Your task to perform on an android device: delete a single message in the gmail app Image 0: 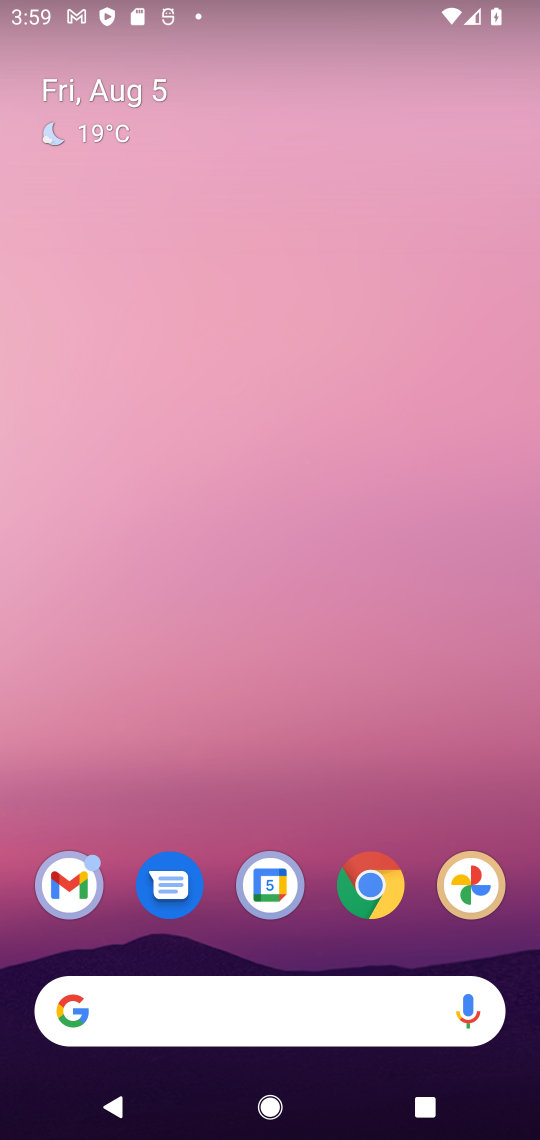
Step 0: drag from (326, 1095) to (331, 368)
Your task to perform on an android device: delete a single message in the gmail app Image 1: 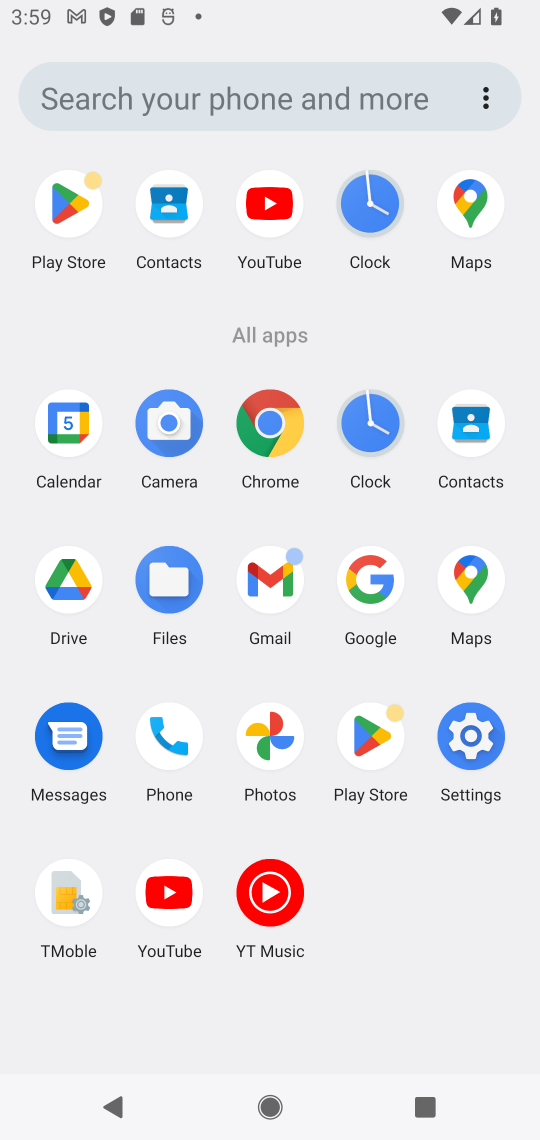
Step 1: click (275, 569)
Your task to perform on an android device: delete a single message in the gmail app Image 2: 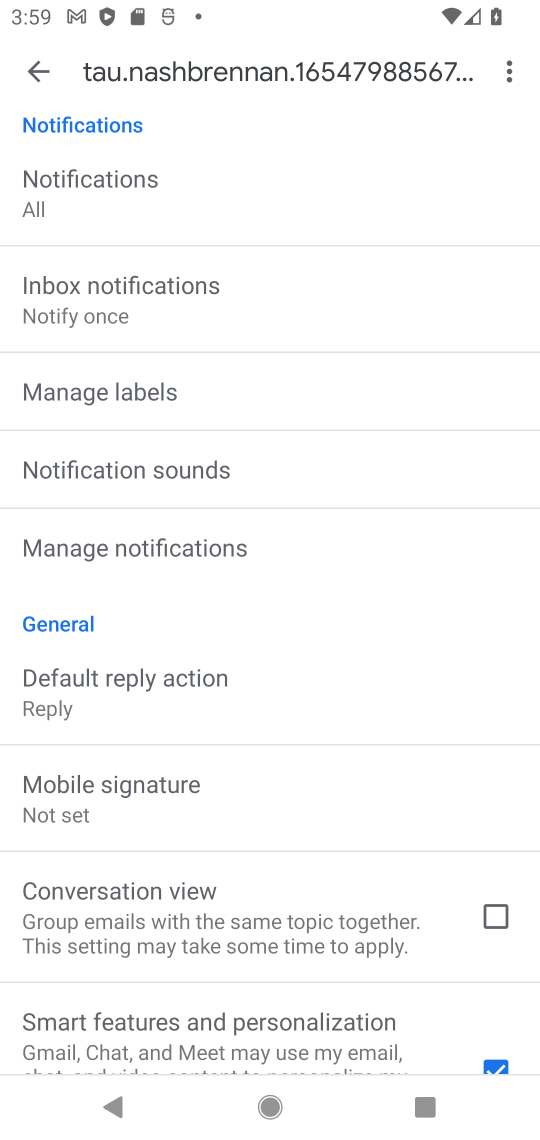
Step 2: click (40, 67)
Your task to perform on an android device: delete a single message in the gmail app Image 3: 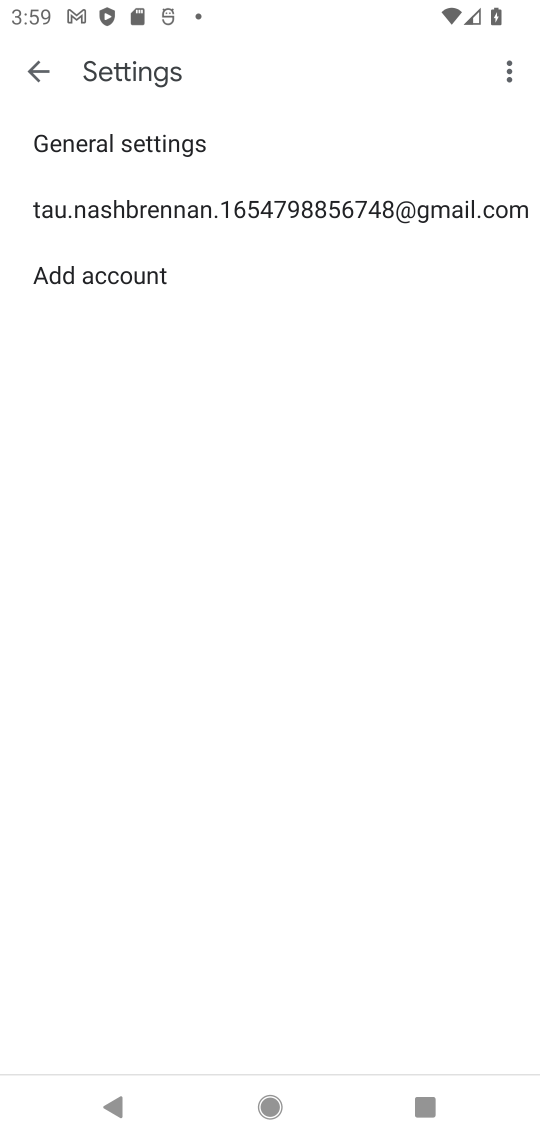
Step 3: click (49, 67)
Your task to perform on an android device: delete a single message in the gmail app Image 4: 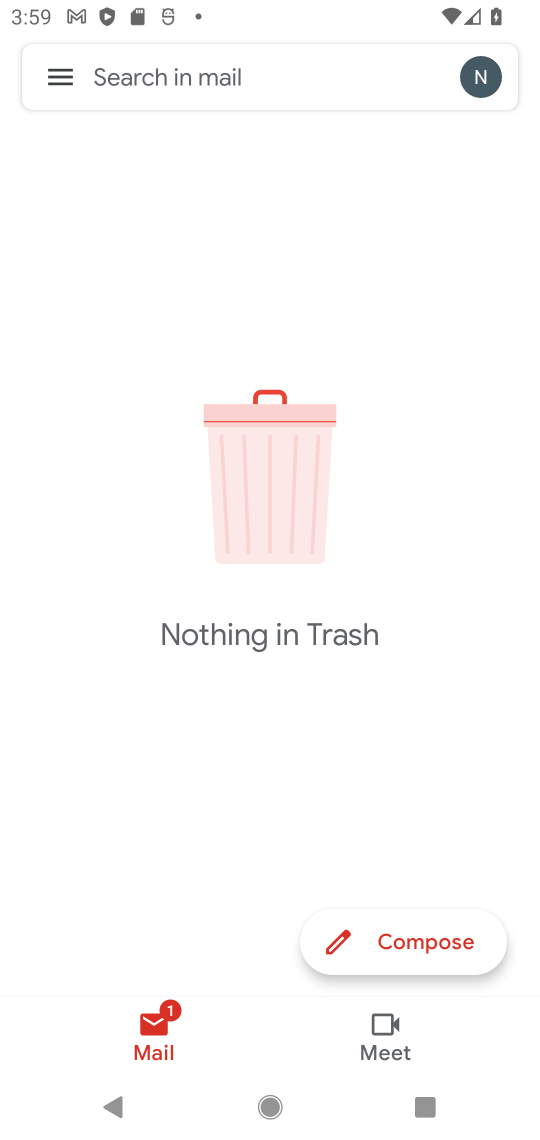
Step 4: click (64, 77)
Your task to perform on an android device: delete a single message in the gmail app Image 5: 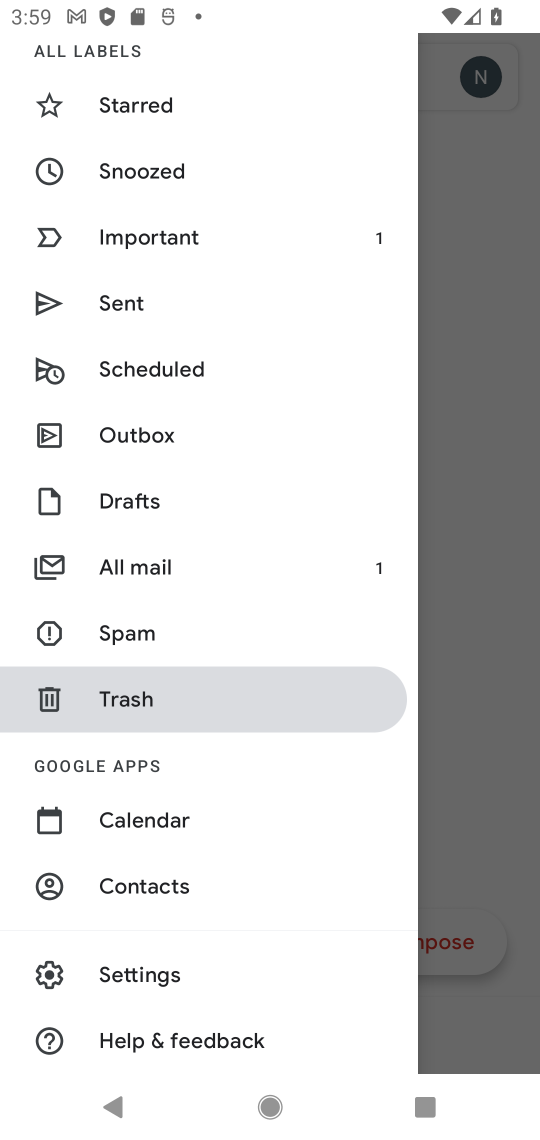
Step 5: drag from (185, 148) to (265, 903)
Your task to perform on an android device: delete a single message in the gmail app Image 6: 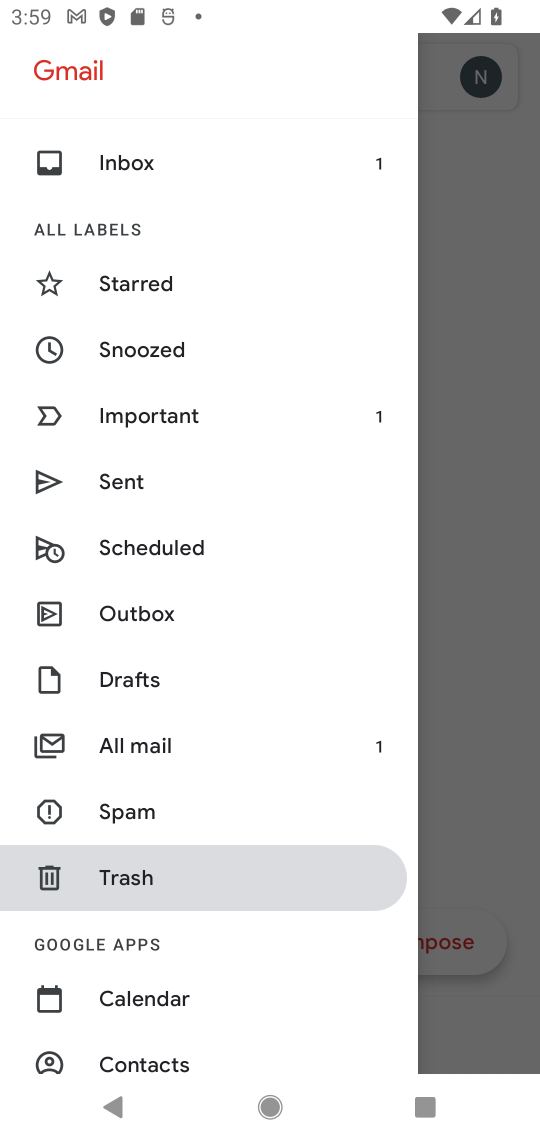
Step 6: click (121, 157)
Your task to perform on an android device: delete a single message in the gmail app Image 7: 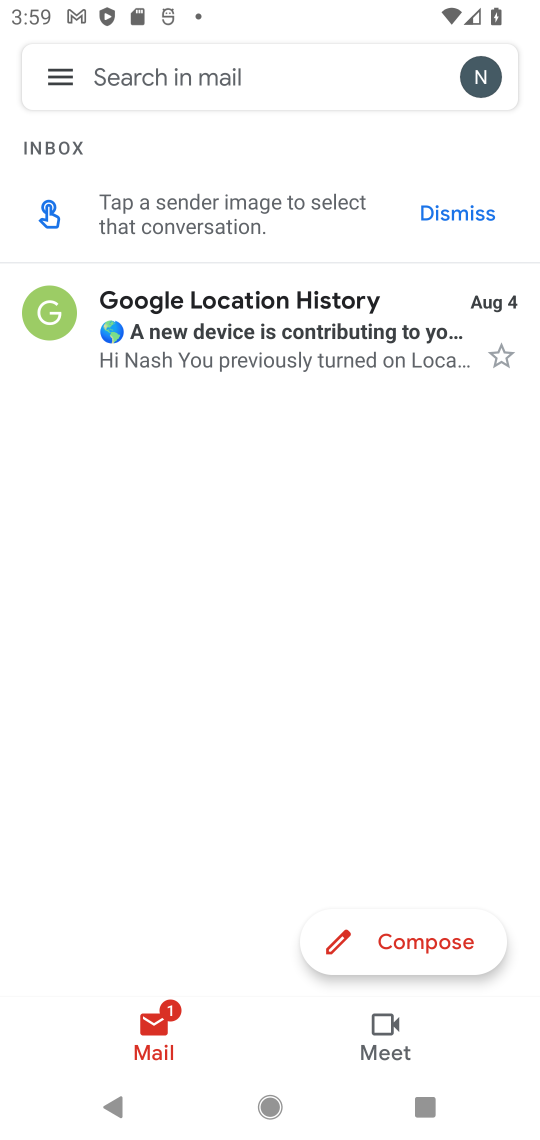
Step 7: click (301, 341)
Your task to perform on an android device: delete a single message in the gmail app Image 8: 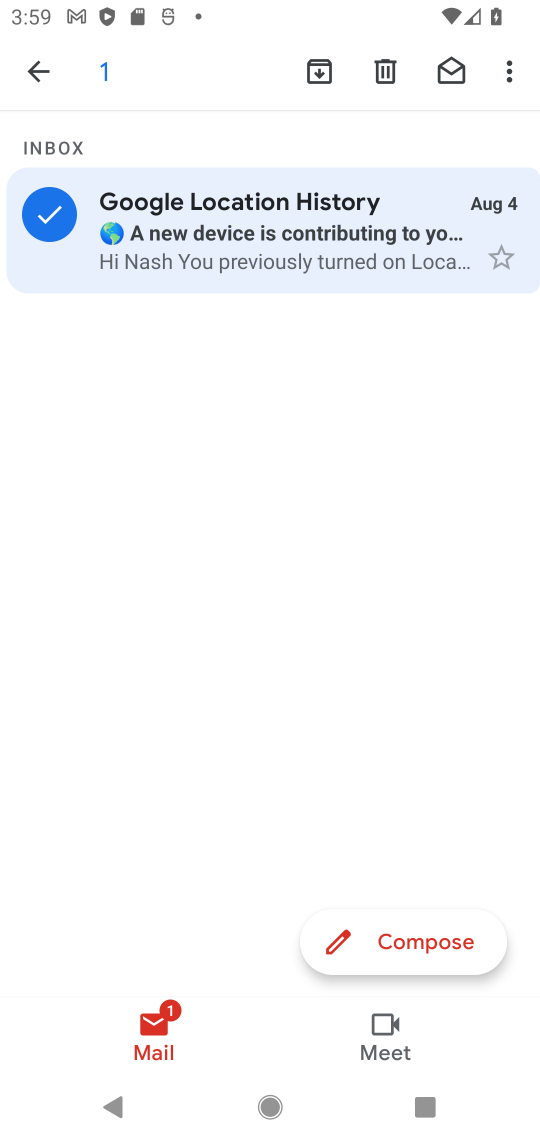
Step 8: click (388, 59)
Your task to perform on an android device: delete a single message in the gmail app Image 9: 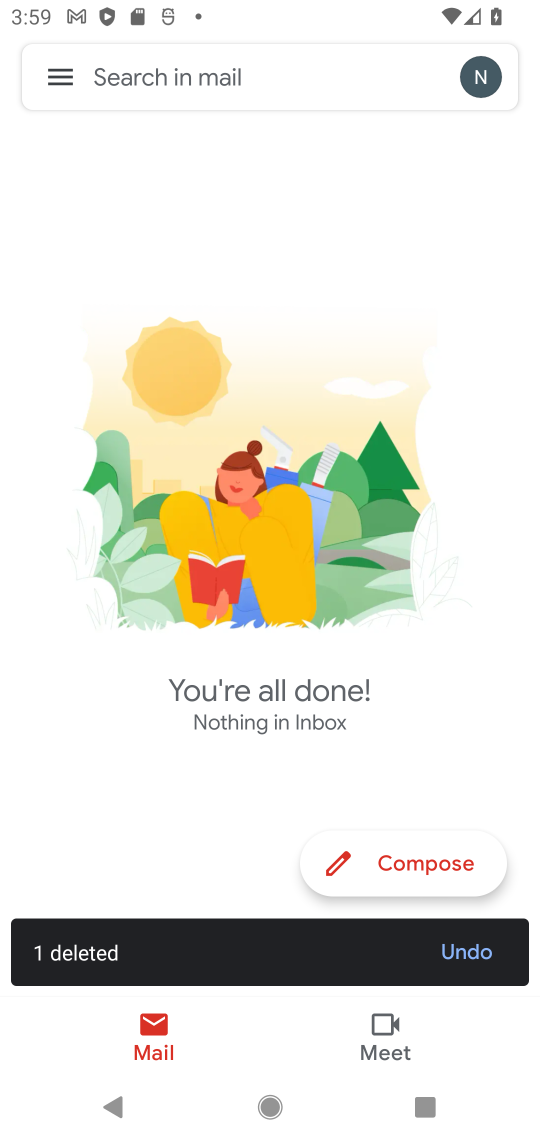
Step 9: task complete